Your task to perform on an android device: toggle data saver in the chrome app Image 0: 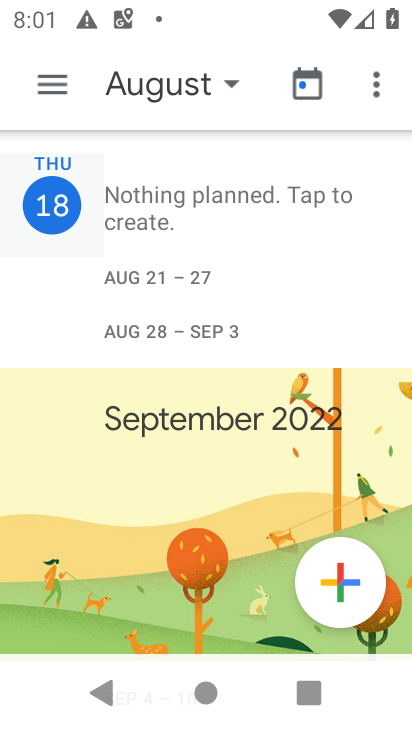
Step 0: task complete